Your task to perform on an android device: Open notification settings Image 0: 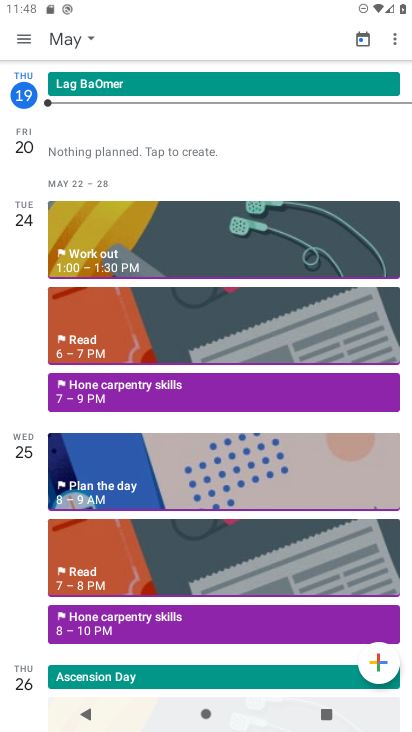
Step 0: press home button
Your task to perform on an android device: Open notification settings Image 1: 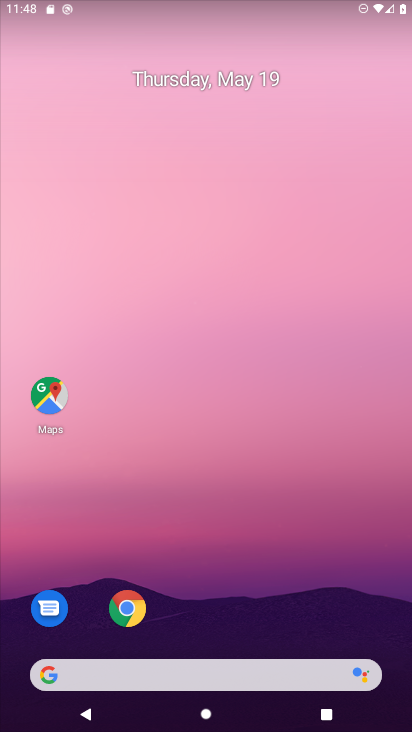
Step 1: drag from (229, 605) to (372, 157)
Your task to perform on an android device: Open notification settings Image 2: 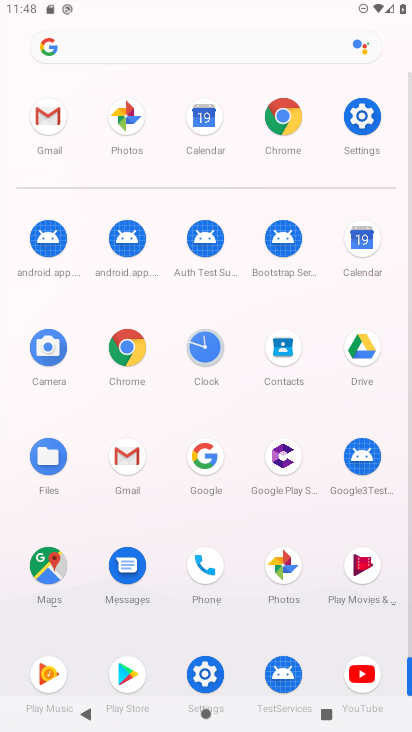
Step 2: click (348, 138)
Your task to perform on an android device: Open notification settings Image 3: 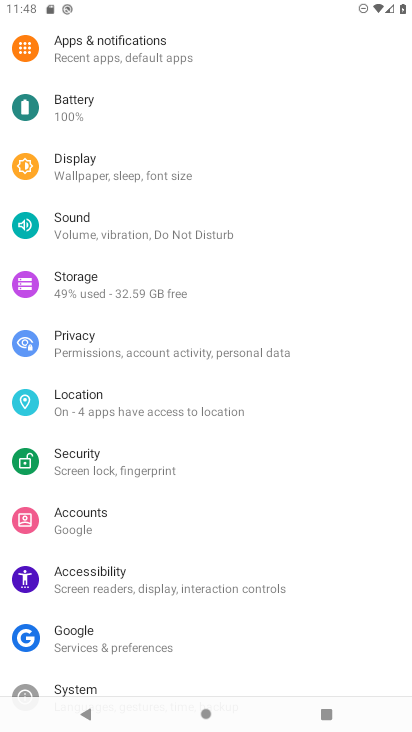
Step 3: click (174, 63)
Your task to perform on an android device: Open notification settings Image 4: 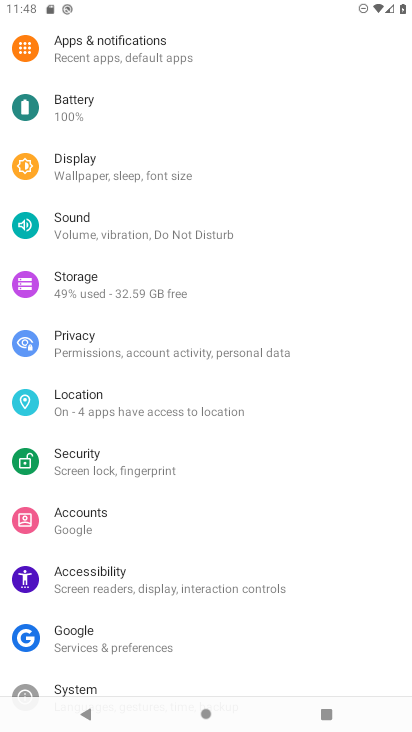
Step 4: click (174, 63)
Your task to perform on an android device: Open notification settings Image 5: 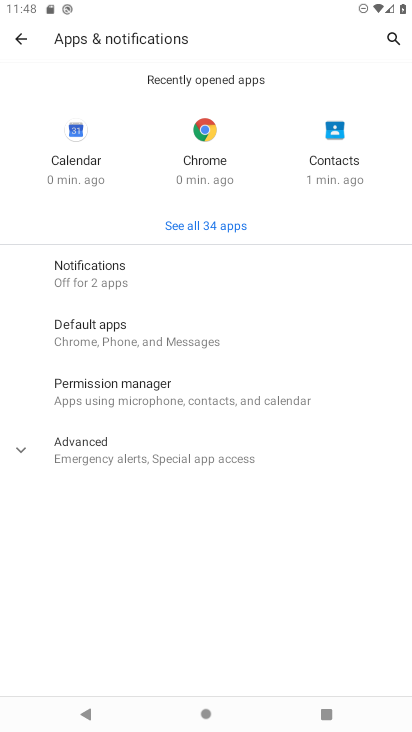
Step 5: task complete